Your task to perform on an android device: What is the recent news? Image 0: 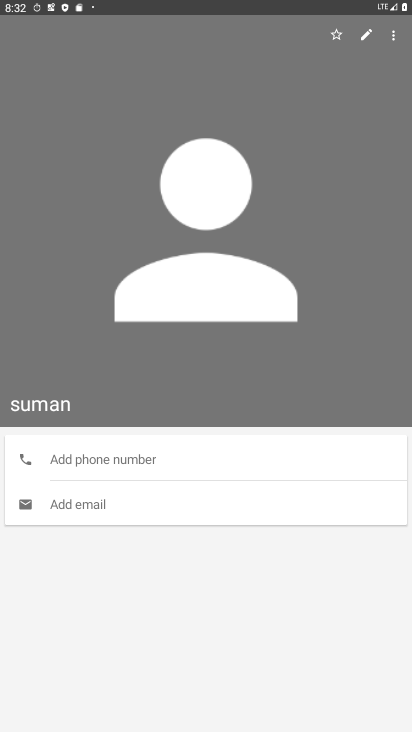
Step 0: press home button
Your task to perform on an android device: What is the recent news? Image 1: 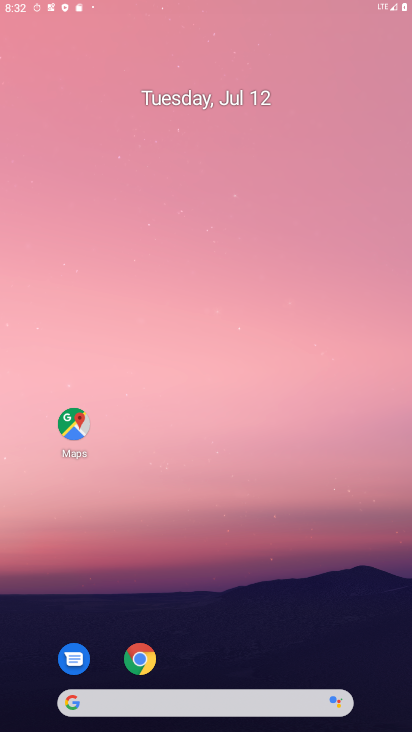
Step 1: drag from (380, 679) to (213, 10)
Your task to perform on an android device: What is the recent news? Image 2: 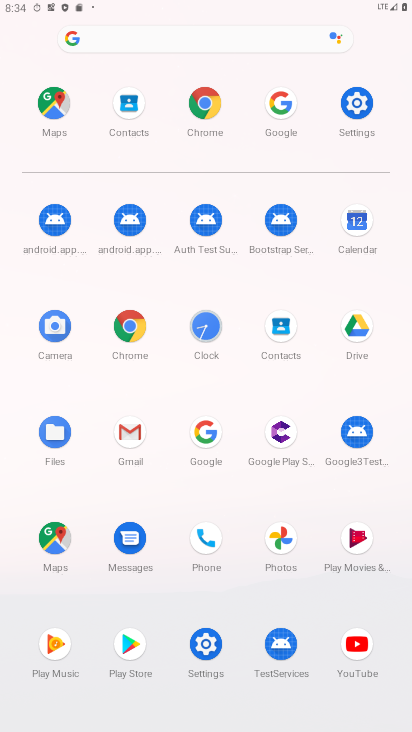
Step 2: click (219, 441)
Your task to perform on an android device: What is the recent news? Image 3: 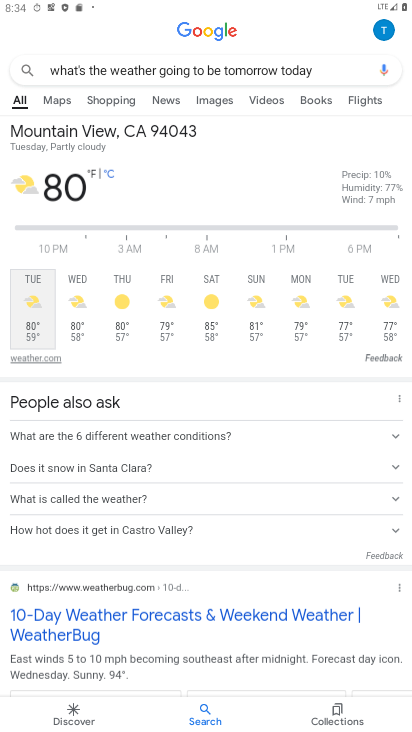
Step 3: press back button
Your task to perform on an android device: What is the recent news? Image 4: 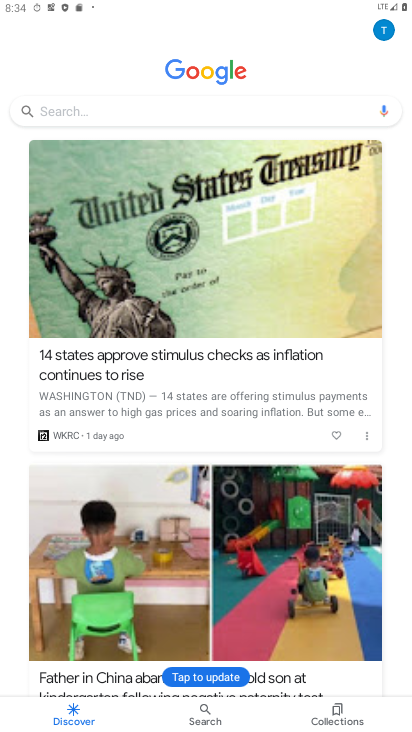
Step 4: click (73, 103)
Your task to perform on an android device: What is the recent news? Image 5: 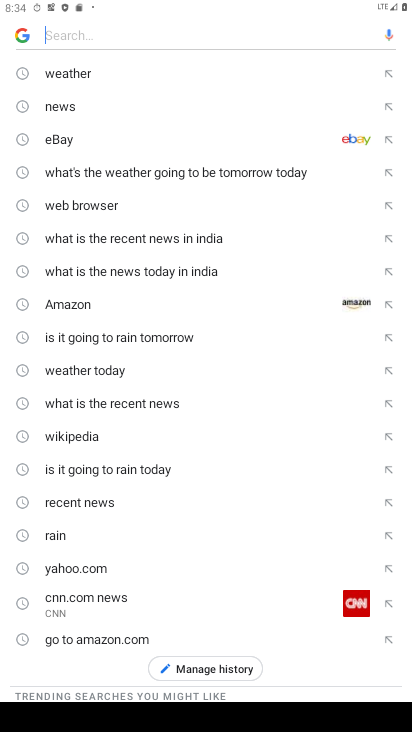
Step 5: type "What is the recent news?"
Your task to perform on an android device: What is the recent news? Image 6: 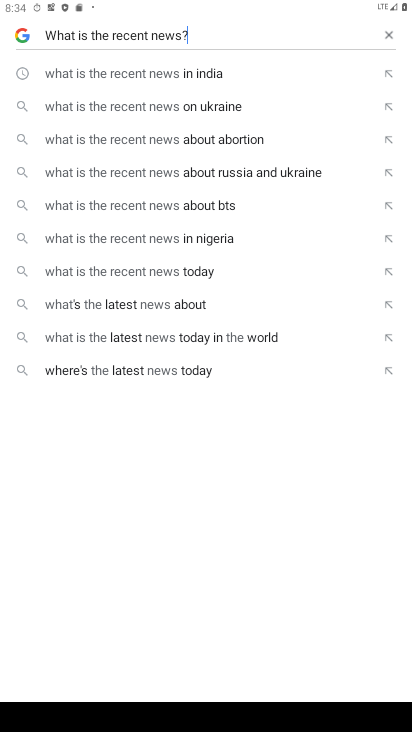
Step 6: click (105, 81)
Your task to perform on an android device: What is the recent news? Image 7: 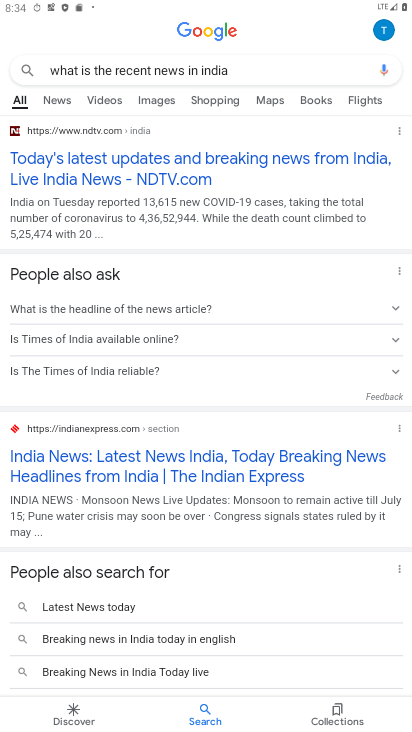
Step 7: task complete